Your task to perform on an android device: Go to Yahoo.com Image 0: 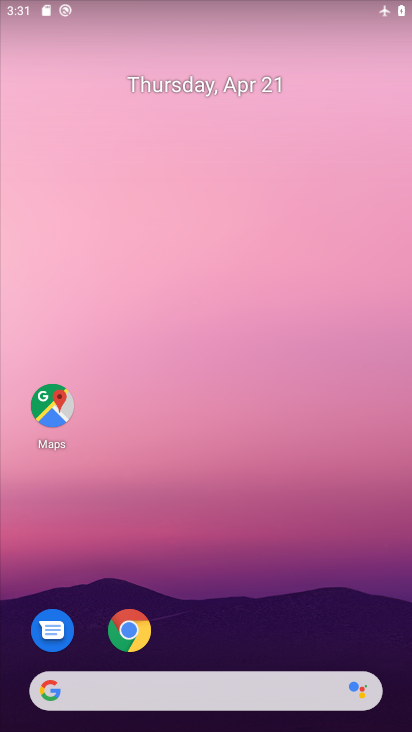
Step 0: drag from (214, 629) to (286, 162)
Your task to perform on an android device: Go to Yahoo.com Image 1: 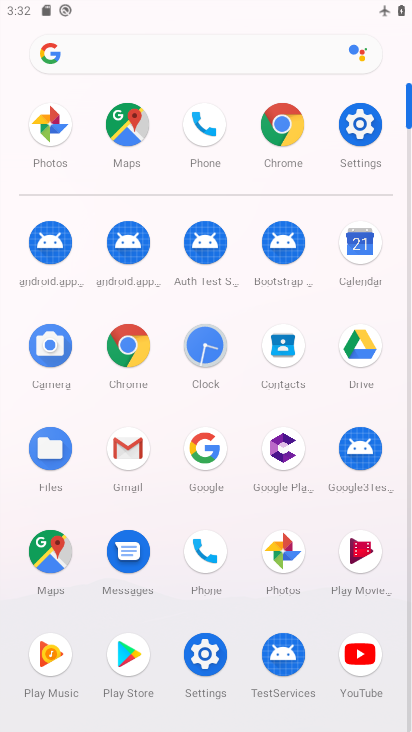
Step 1: click (120, 338)
Your task to perform on an android device: Go to Yahoo.com Image 2: 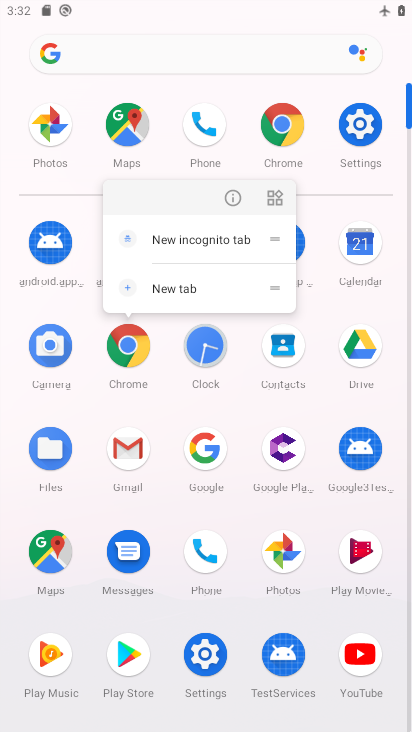
Step 2: click (237, 201)
Your task to perform on an android device: Go to Yahoo.com Image 3: 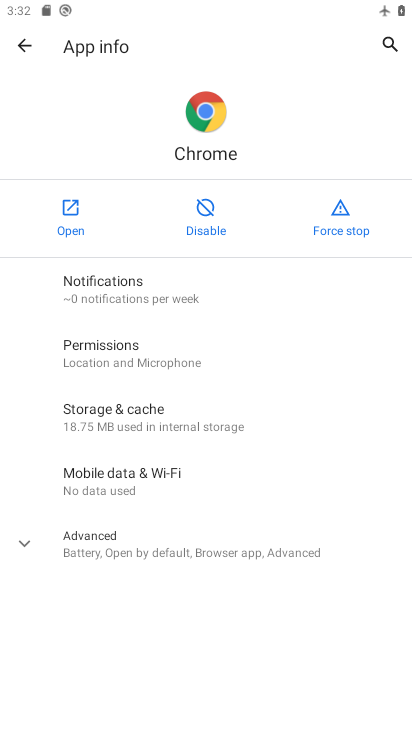
Step 3: click (71, 229)
Your task to perform on an android device: Go to Yahoo.com Image 4: 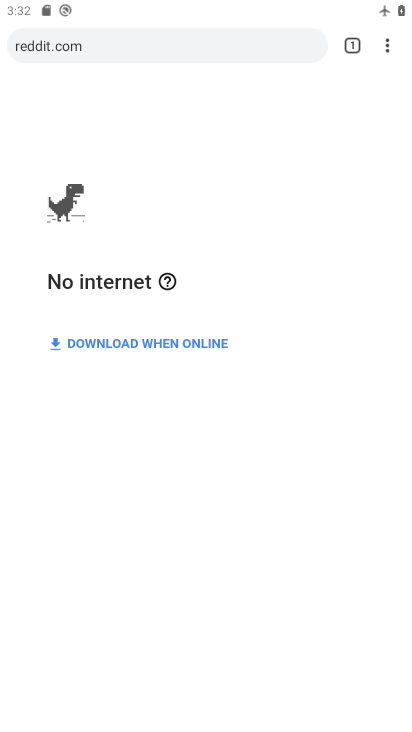
Step 4: click (156, 66)
Your task to perform on an android device: Go to Yahoo.com Image 5: 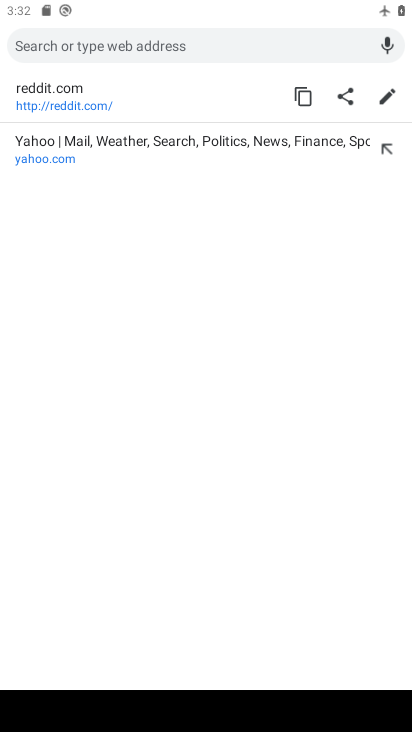
Step 5: type "yahoo.com"
Your task to perform on an android device: Go to Yahoo.com Image 6: 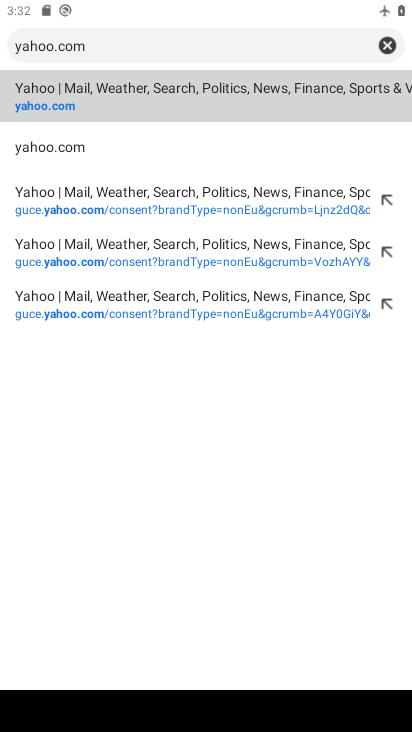
Step 6: click (63, 107)
Your task to perform on an android device: Go to Yahoo.com Image 7: 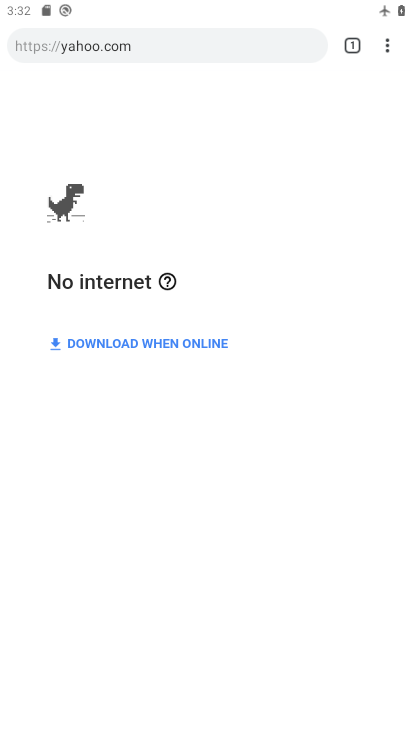
Step 7: task complete